Your task to perform on an android device: What is the news today? Image 0: 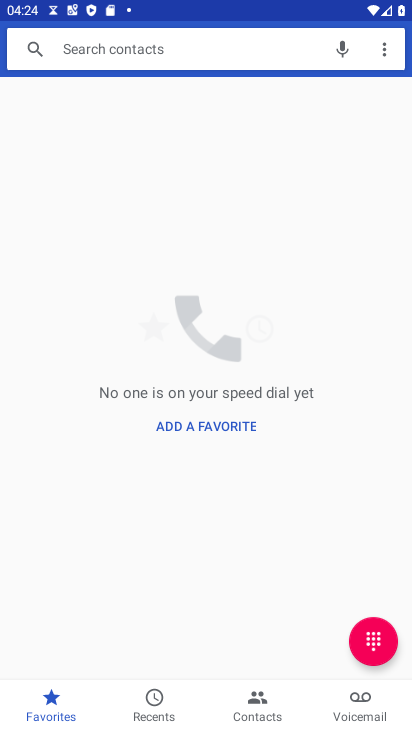
Step 0: press home button
Your task to perform on an android device: What is the news today? Image 1: 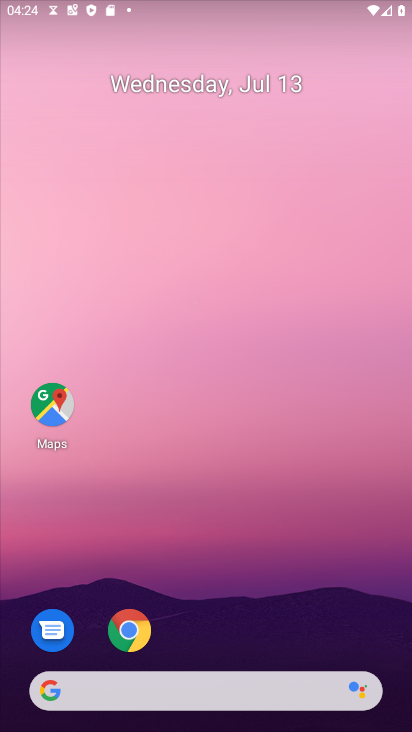
Step 1: drag from (334, 656) to (410, 43)
Your task to perform on an android device: What is the news today? Image 2: 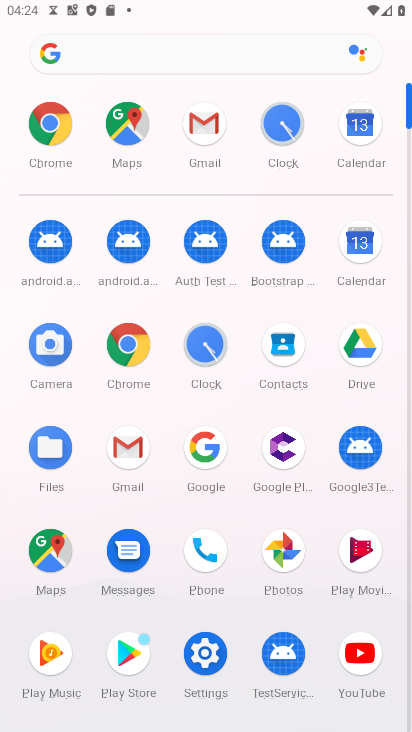
Step 2: click (137, 352)
Your task to perform on an android device: What is the news today? Image 3: 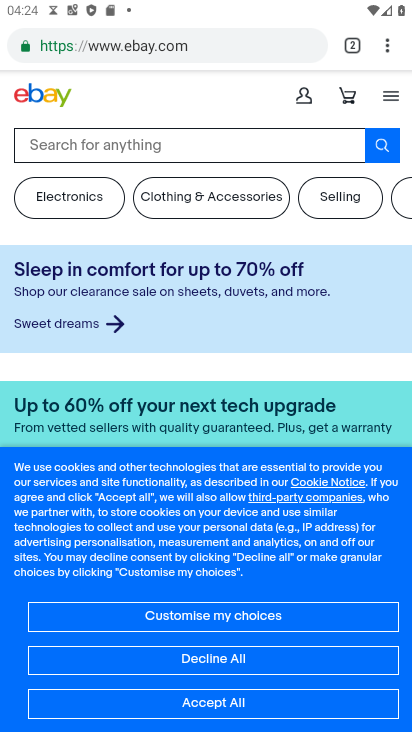
Step 3: click (178, 44)
Your task to perform on an android device: What is the news today? Image 4: 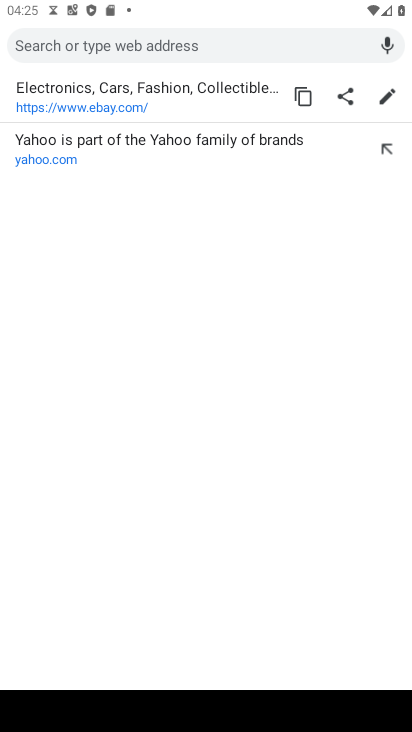
Step 4: type "whats the news today?"
Your task to perform on an android device: What is the news today? Image 5: 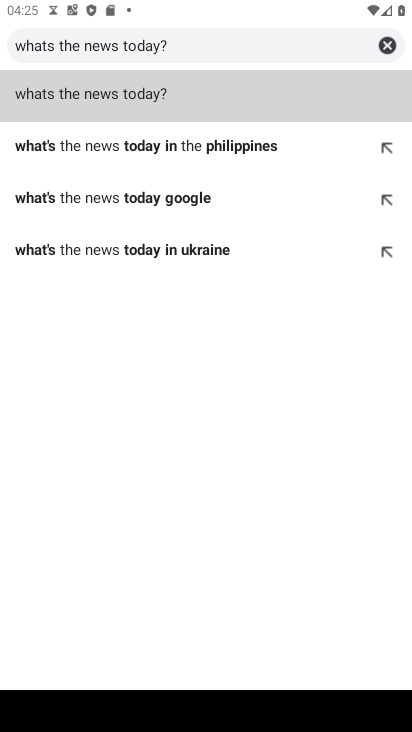
Step 5: click (167, 82)
Your task to perform on an android device: What is the news today? Image 6: 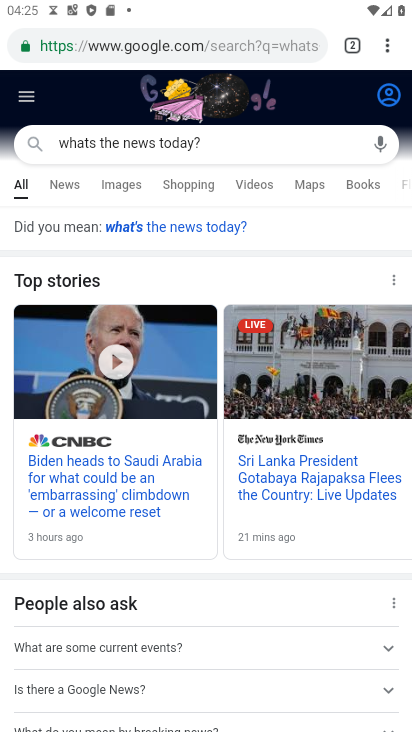
Step 6: task complete